Your task to perform on an android device: turn off wifi Image 0: 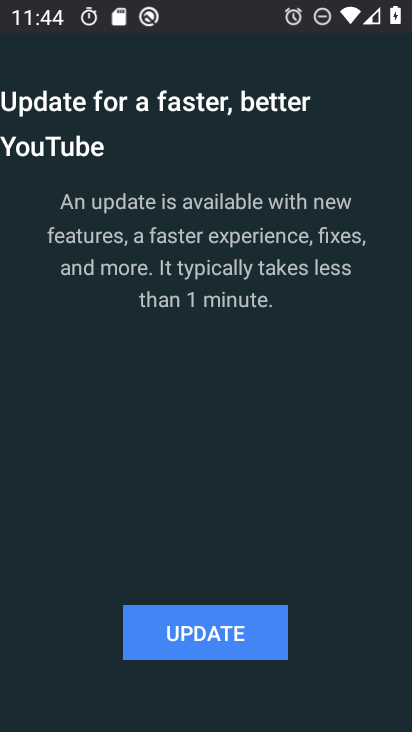
Step 0: press home button
Your task to perform on an android device: turn off wifi Image 1: 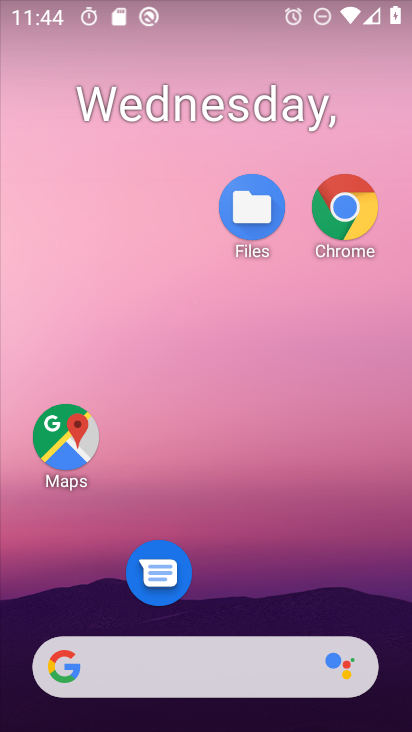
Step 1: drag from (294, 637) to (323, 354)
Your task to perform on an android device: turn off wifi Image 2: 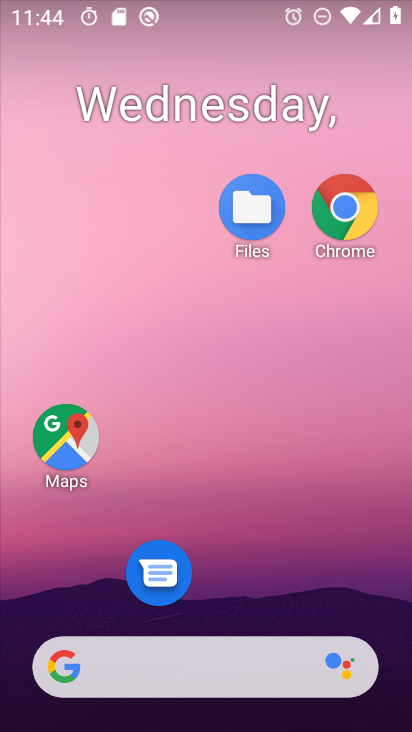
Step 2: drag from (293, 536) to (301, 3)
Your task to perform on an android device: turn off wifi Image 3: 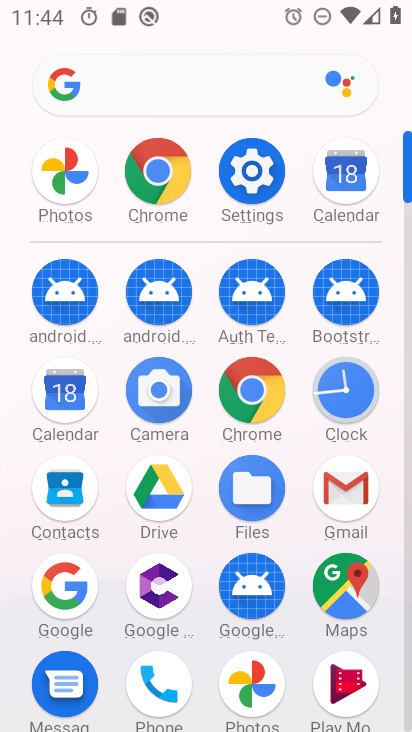
Step 3: click (273, 165)
Your task to perform on an android device: turn off wifi Image 4: 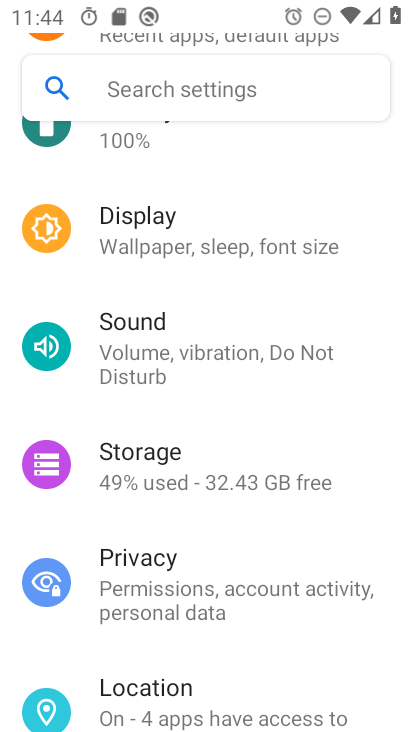
Step 4: drag from (272, 166) to (259, 367)
Your task to perform on an android device: turn off wifi Image 5: 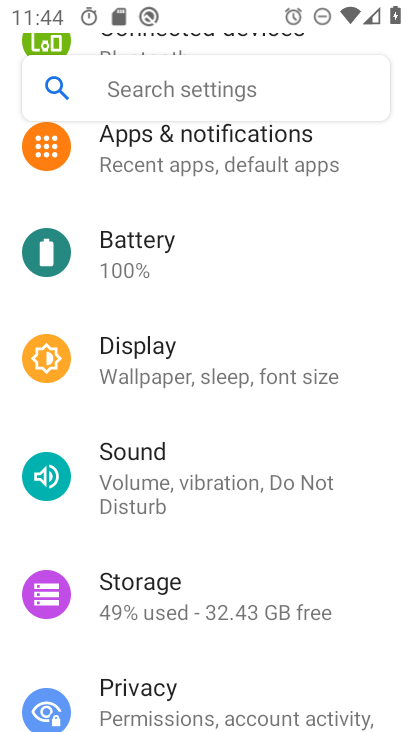
Step 5: click (246, 219)
Your task to perform on an android device: turn off wifi Image 6: 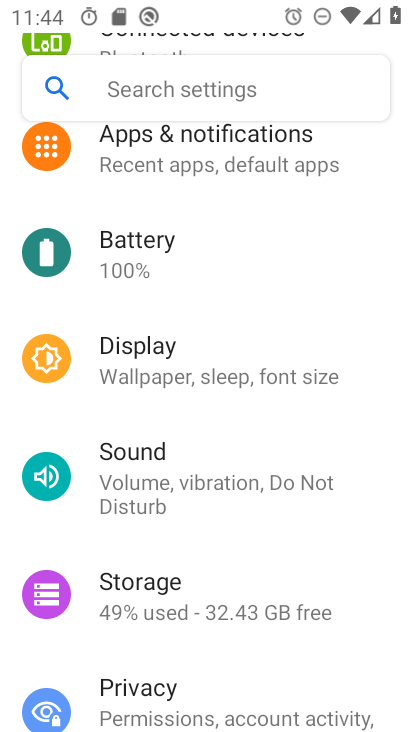
Step 6: drag from (246, 219) to (227, 449)
Your task to perform on an android device: turn off wifi Image 7: 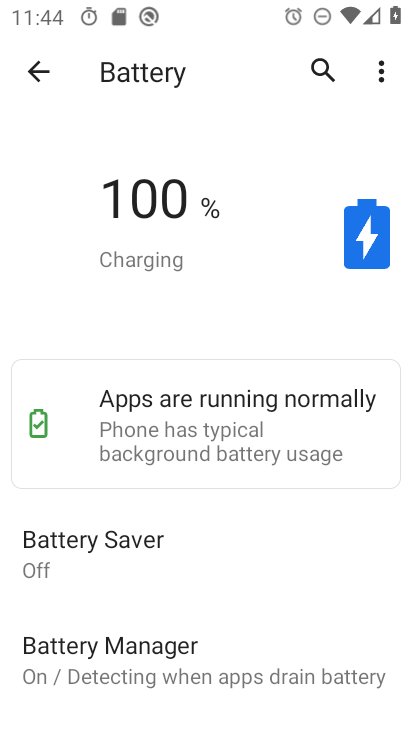
Step 7: click (52, 85)
Your task to perform on an android device: turn off wifi Image 8: 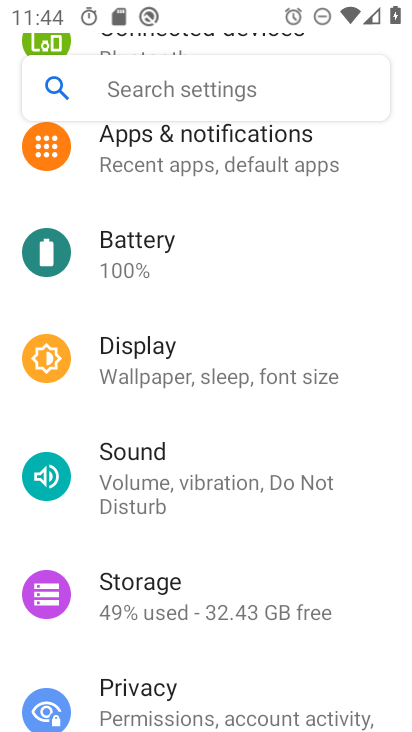
Step 8: drag from (191, 163) to (172, 268)
Your task to perform on an android device: turn off wifi Image 9: 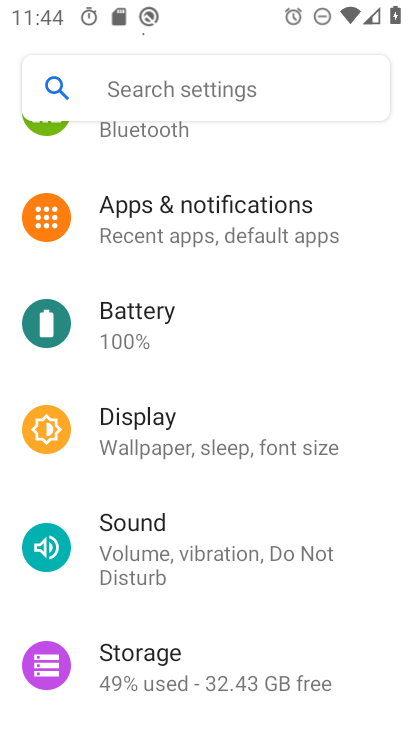
Step 9: drag from (176, 220) to (190, 587)
Your task to perform on an android device: turn off wifi Image 10: 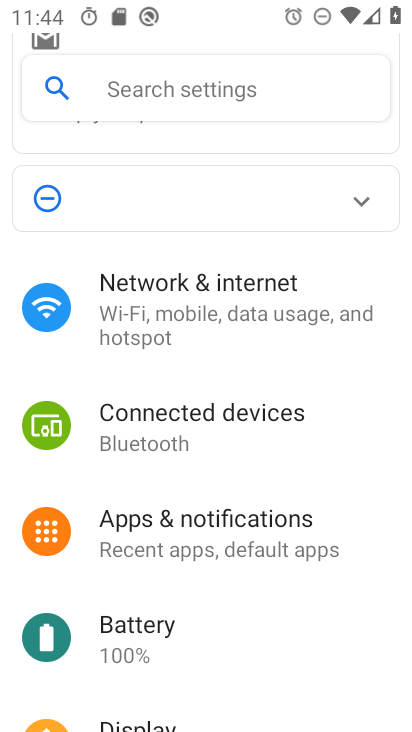
Step 10: click (200, 308)
Your task to perform on an android device: turn off wifi Image 11: 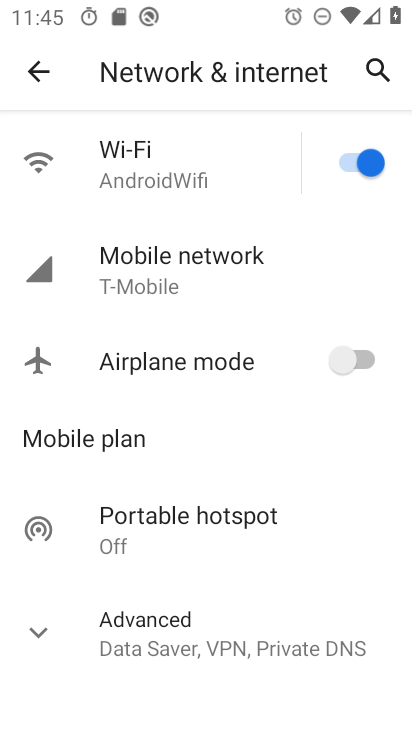
Step 11: click (188, 177)
Your task to perform on an android device: turn off wifi Image 12: 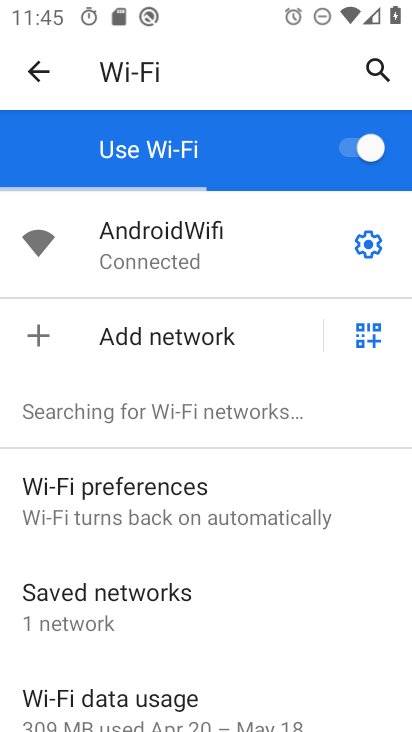
Step 12: click (350, 153)
Your task to perform on an android device: turn off wifi Image 13: 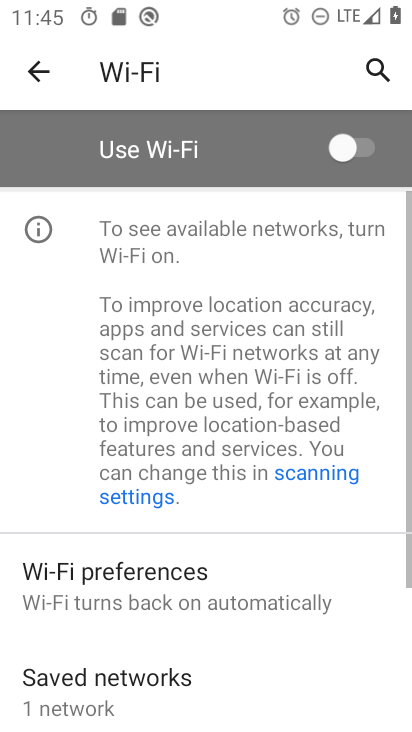
Step 13: task complete